Your task to perform on an android device: open a bookmark in the chrome app Image 0: 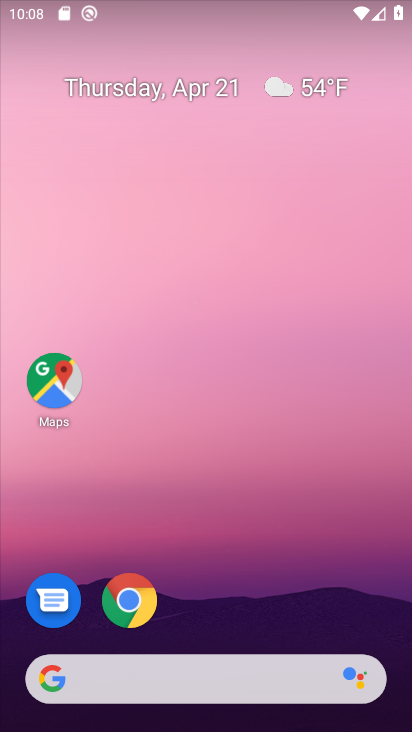
Step 0: click (135, 594)
Your task to perform on an android device: open a bookmark in the chrome app Image 1: 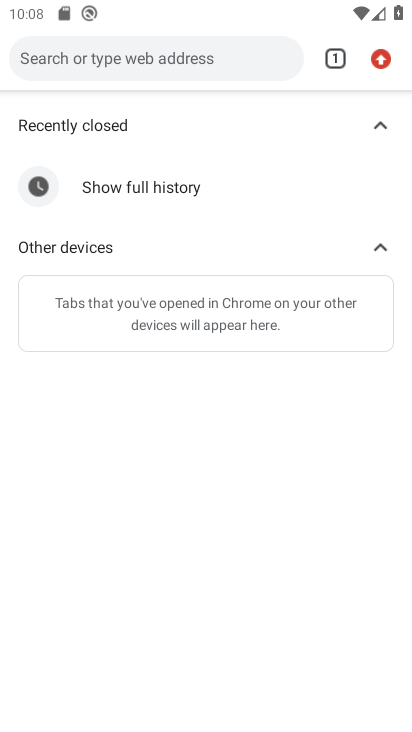
Step 1: click (382, 62)
Your task to perform on an android device: open a bookmark in the chrome app Image 2: 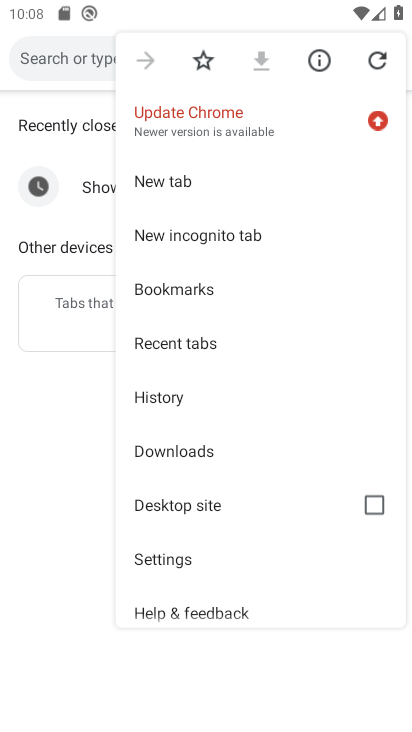
Step 2: click (189, 295)
Your task to perform on an android device: open a bookmark in the chrome app Image 3: 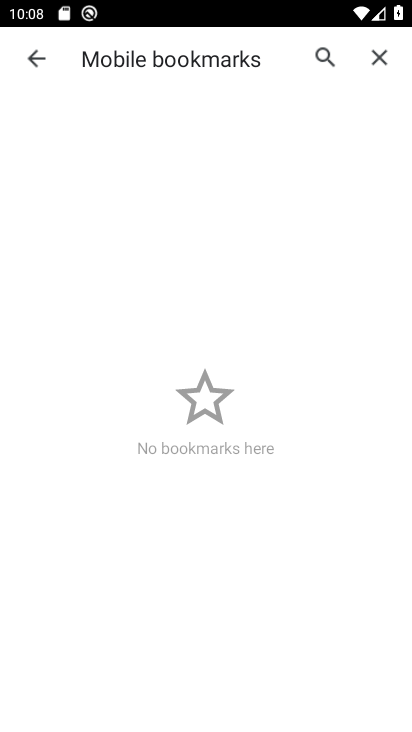
Step 3: task complete